Your task to perform on an android device: choose inbox layout in the gmail app Image 0: 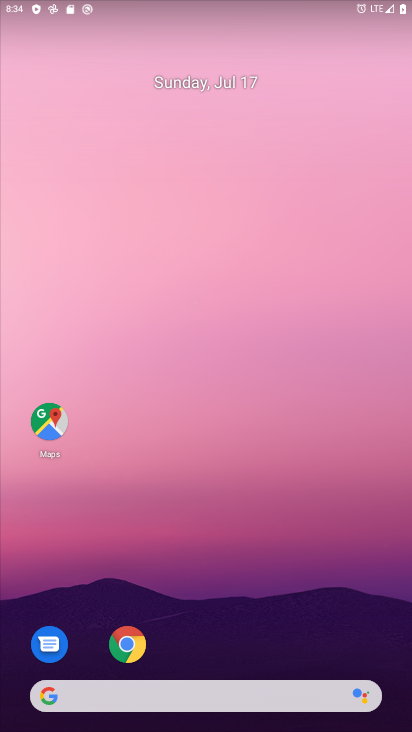
Step 0: drag from (215, 679) to (208, 212)
Your task to perform on an android device: choose inbox layout in the gmail app Image 1: 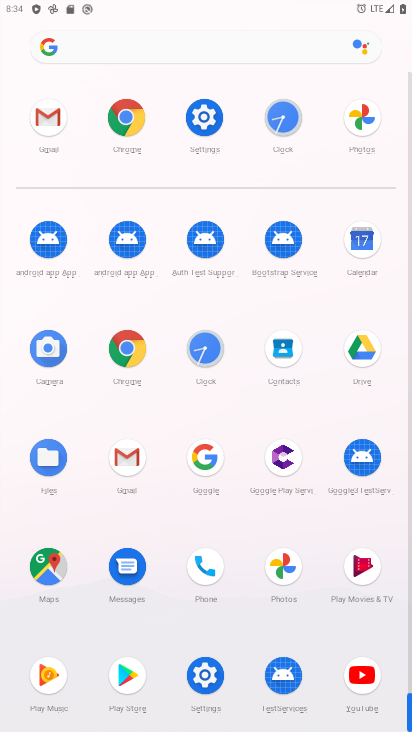
Step 1: click (121, 461)
Your task to perform on an android device: choose inbox layout in the gmail app Image 2: 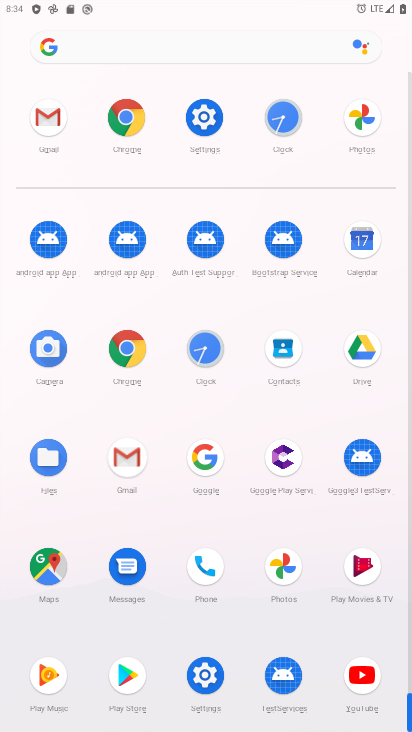
Step 2: click (122, 460)
Your task to perform on an android device: choose inbox layout in the gmail app Image 3: 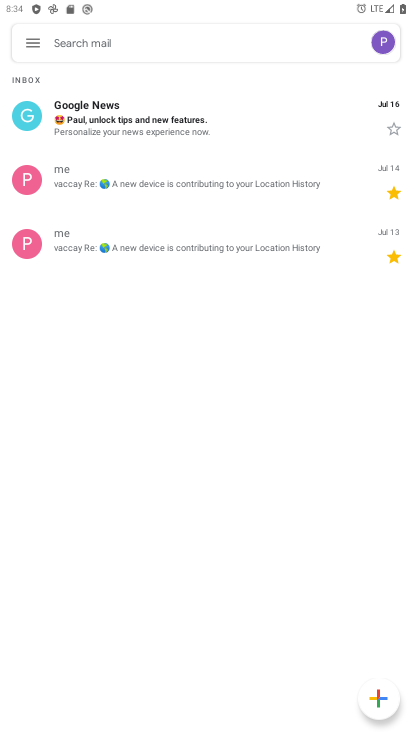
Step 3: click (145, 120)
Your task to perform on an android device: choose inbox layout in the gmail app Image 4: 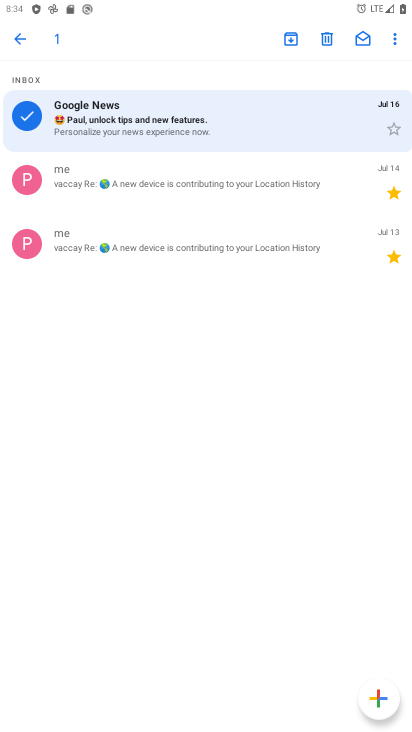
Step 4: click (400, 40)
Your task to perform on an android device: choose inbox layout in the gmail app Image 5: 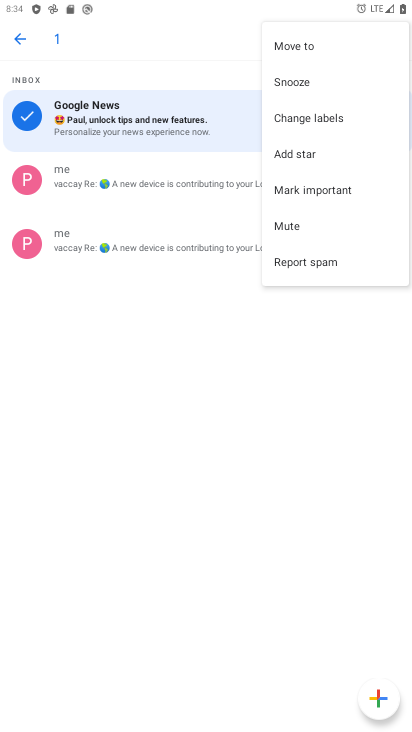
Step 5: click (229, 110)
Your task to perform on an android device: choose inbox layout in the gmail app Image 6: 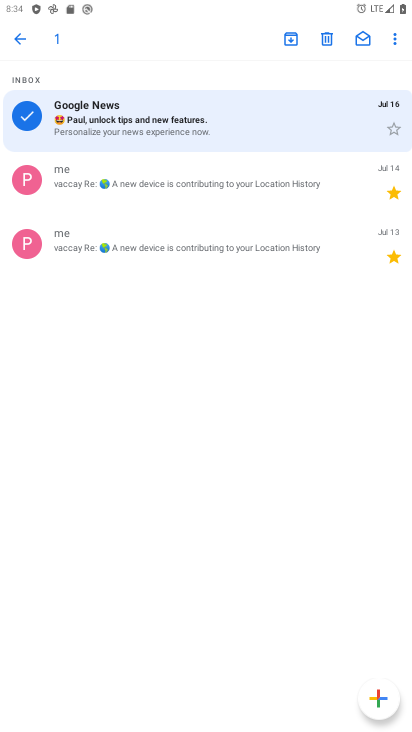
Step 6: click (197, 126)
Your task to perform on an android device: choose inbox layout in the gmail app Image 7: 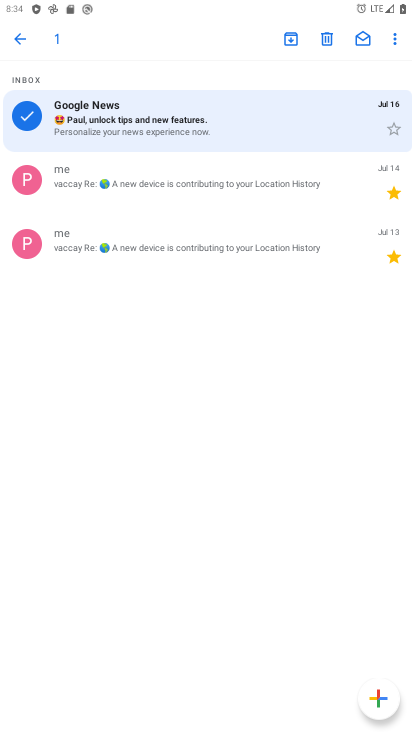
Step 7: click (197, 124)
Your task to perform on an android device: choose inbox layout in the gmail app Image 8: 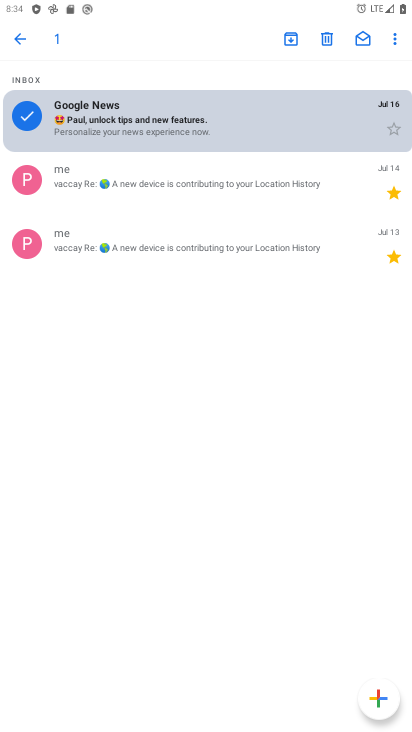
Step 8: click (198, 124)
Your task to perform on an android device: choose inbox layout in the gmail app Image 9: 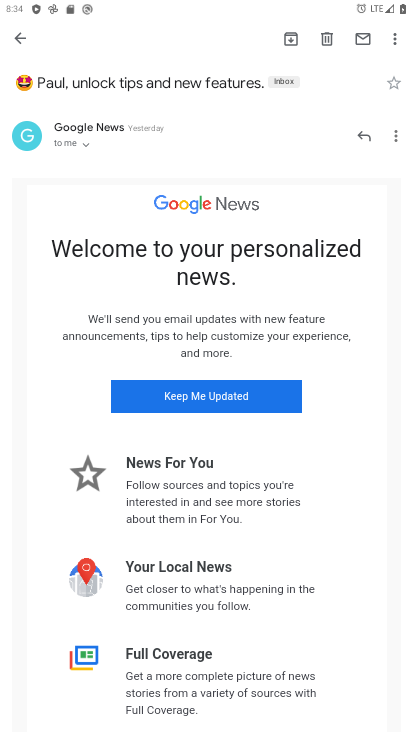
Step 9: click (399, 133)
Your task to perform on an android device: choose inbox layout in the gmail app Image 10: 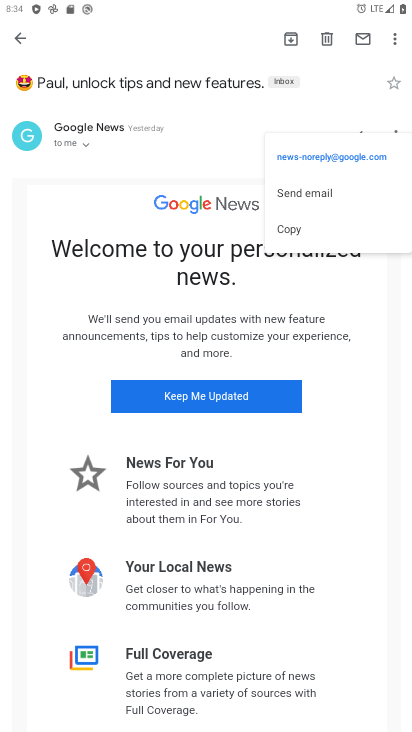
Step 10: click (206, 167)
Your task to perform on an android device: choose inbox layout in the gmail app Image 11: 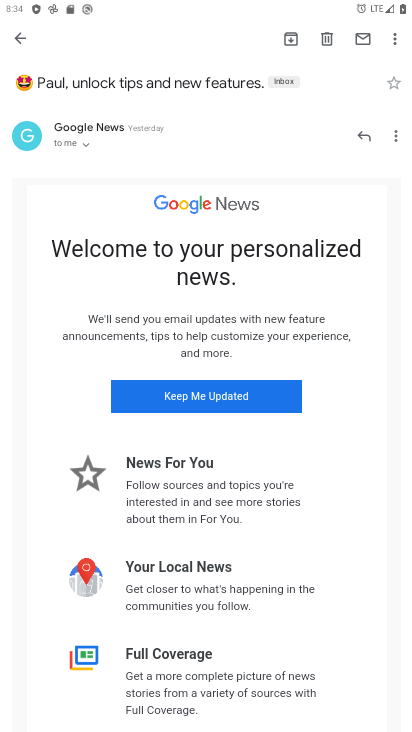
Step 11: click (393, 35)
Your task to perform on an android device: choose inbox layout in the gmail app Image 12: 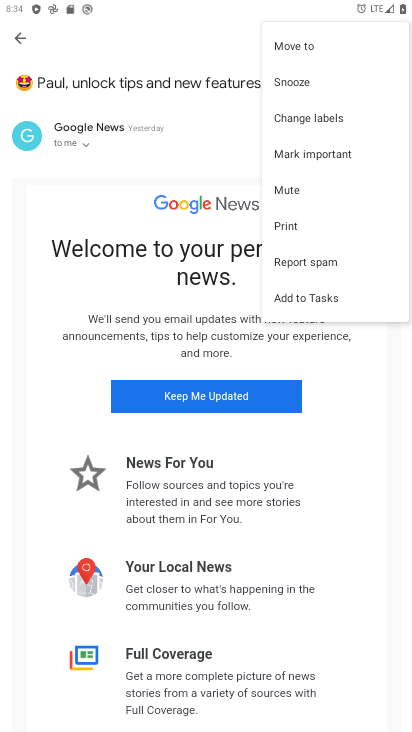
Step 12: click (287, 119)
Your task to perform on an android device: choose inbox layout in the gmail app Image 13: 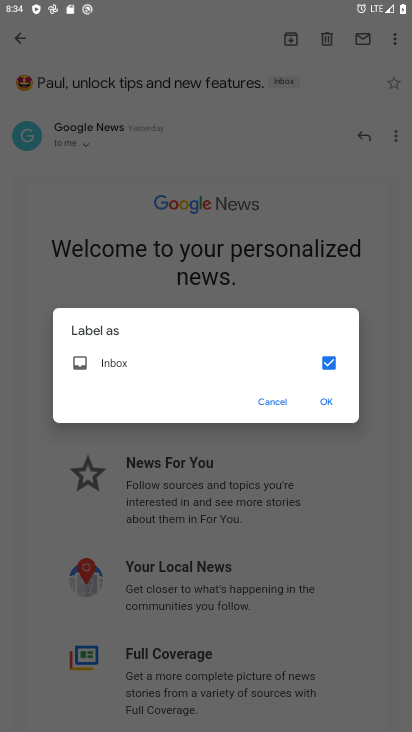
Step 13: click (334, 399)
Your task to perform on an android device: choose inbox layout in the gmail app Image 14: 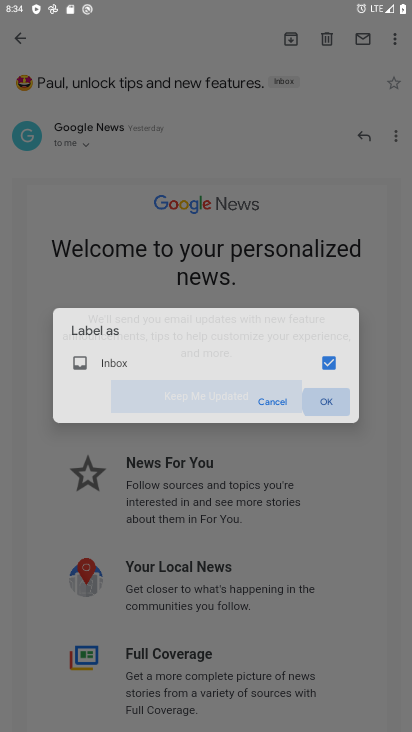
Step 14: click (333, 401)
Your task to perform on an android device: choose inbox layout in the gmail app Image 15: 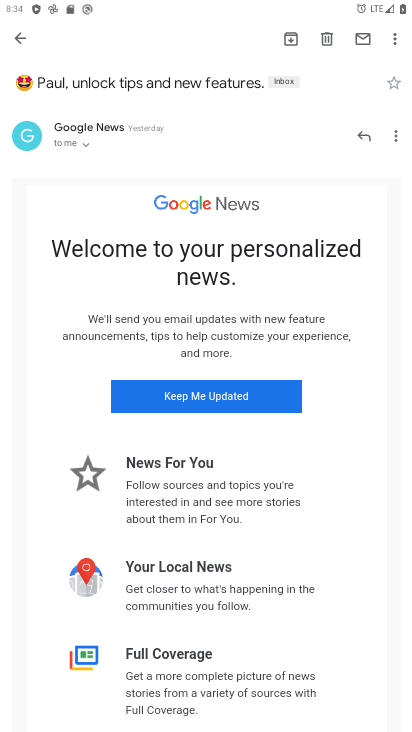
Step 15: click (333, 402)
Your task to perform on an android device: choose inbox layout in the gmail app Image 16: 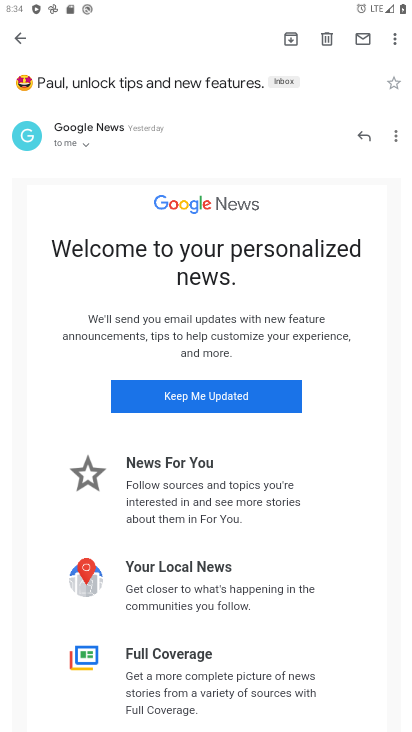
Step 16: click (333, 402)
Your task to perform on an android device: choose inbox layout in the gmail app Image 17: 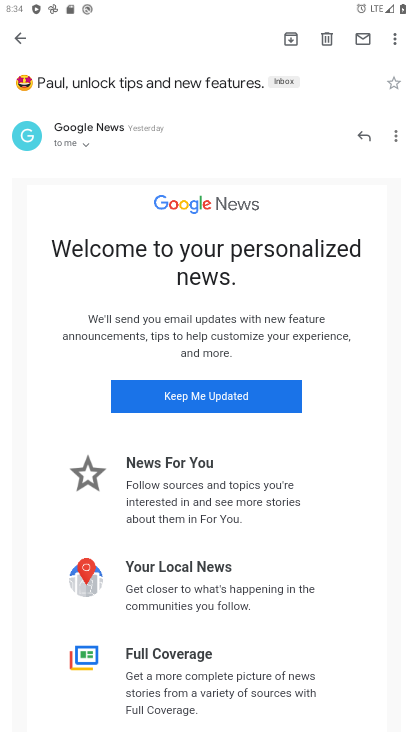
Step 17: task complete